Your task to perform on an android device: Open Yahoo.com Image 0: 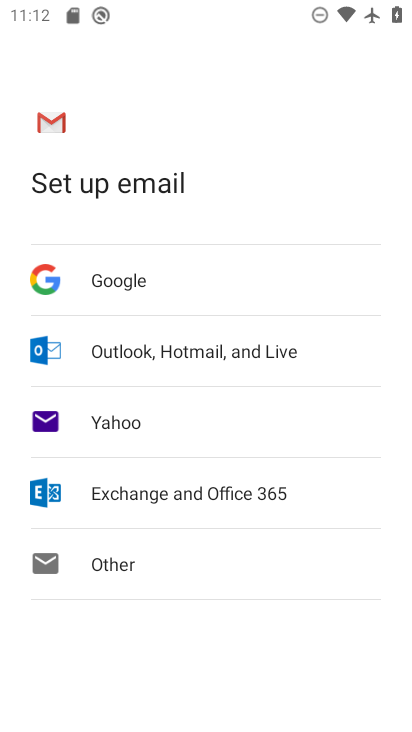
Step 0: press home button
Your task to perform on an android device: Open Yahoo.com Image 1: 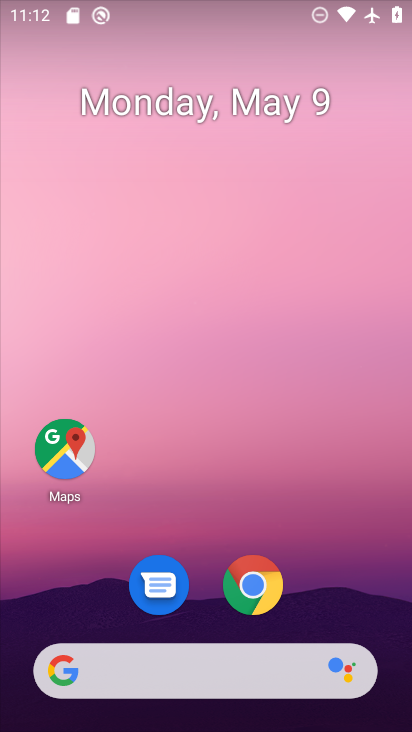
Step 1: click (227, 665)
Your task to perform on an android device: Open Yahoo.com Image 2: 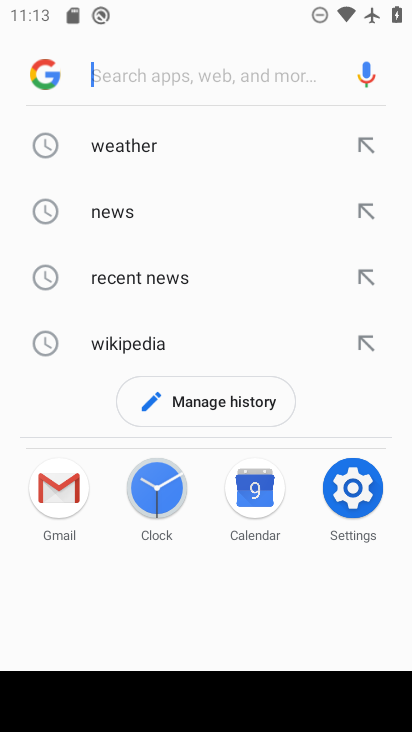
Step 2: type "yahoo.com"
Your task to perform on an android device: Open Yahoo.com Image 3: 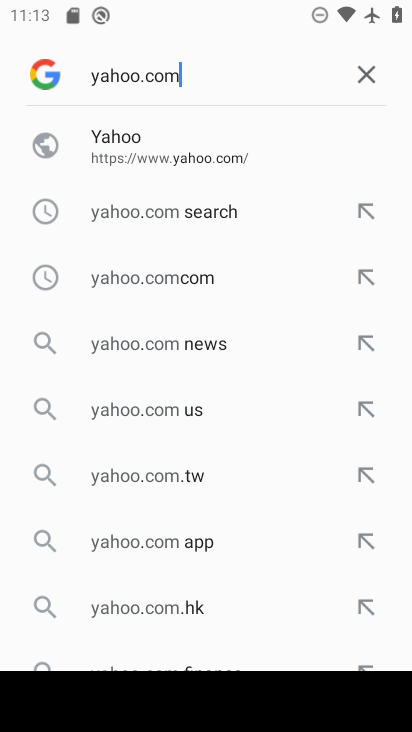
Step 3: click (125, 139)
Your task to perform on an android device: Open Yahoo.com Image 4: 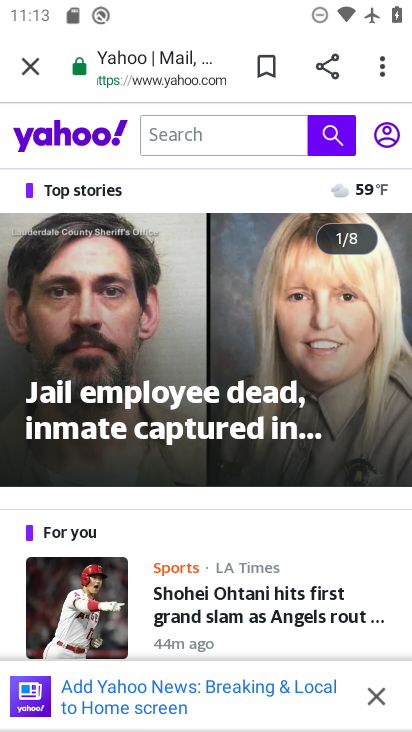
Step 4: task complete